Your task to perform on an android device: Search for the best-rated coffee table on Crate & Barrel Image 0: 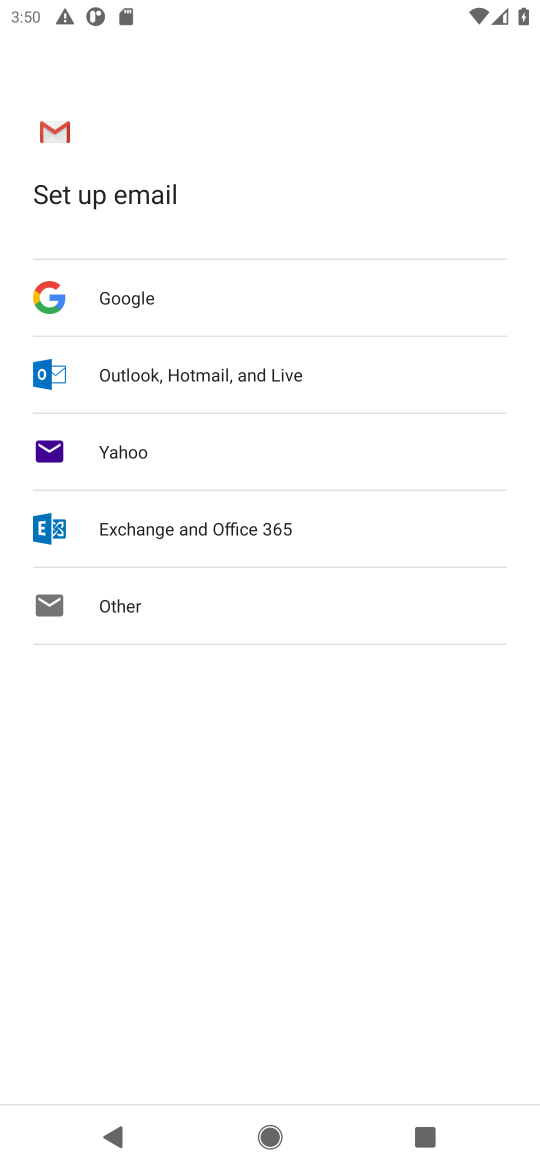
Step 0: press home button
Your task to perform on an android device: Search for the best-rated coffee table on Crate & Barrel Image 1: 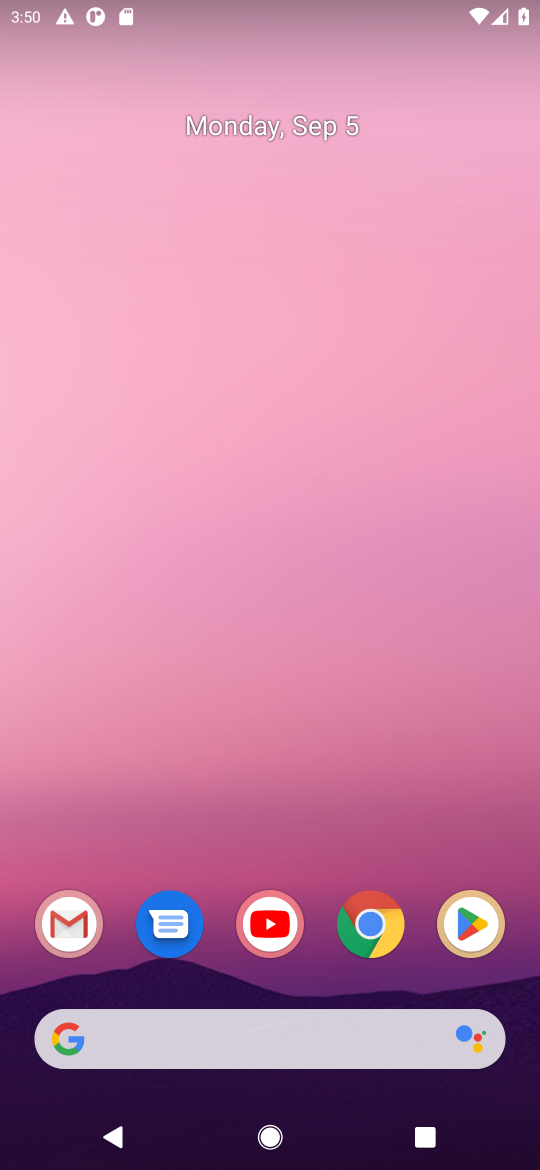
Step 1: click (352, 916)
Your task to perform on an android device: Search for the best-rated coffee table on Crate & Barrel Image 2: 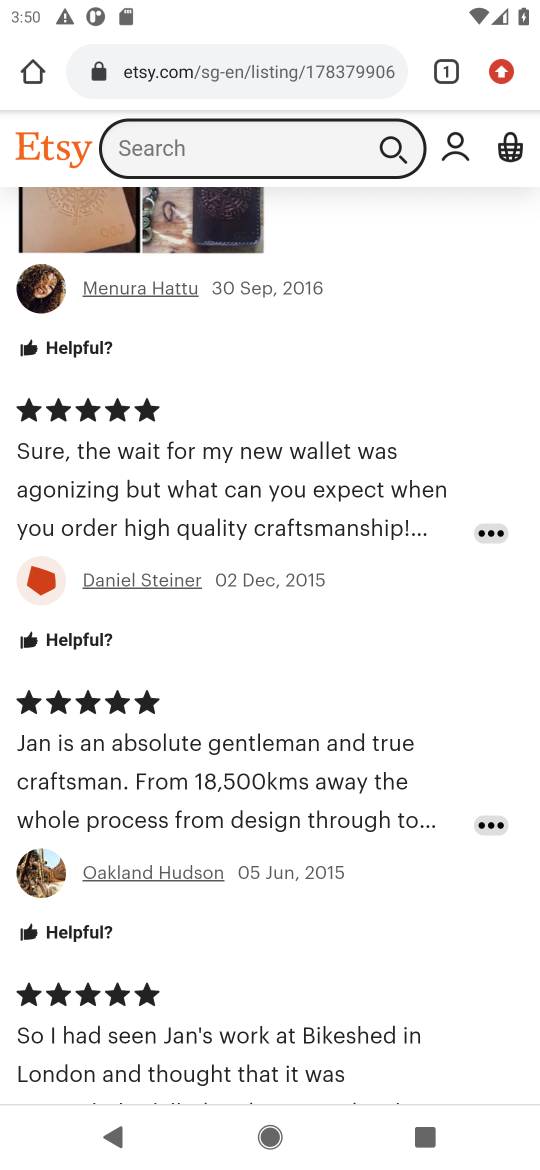
Step 2: click (173, 80)
Your task to perform on an android device: Search for the best-rated coffee table on Crate & Barrel Image 3: 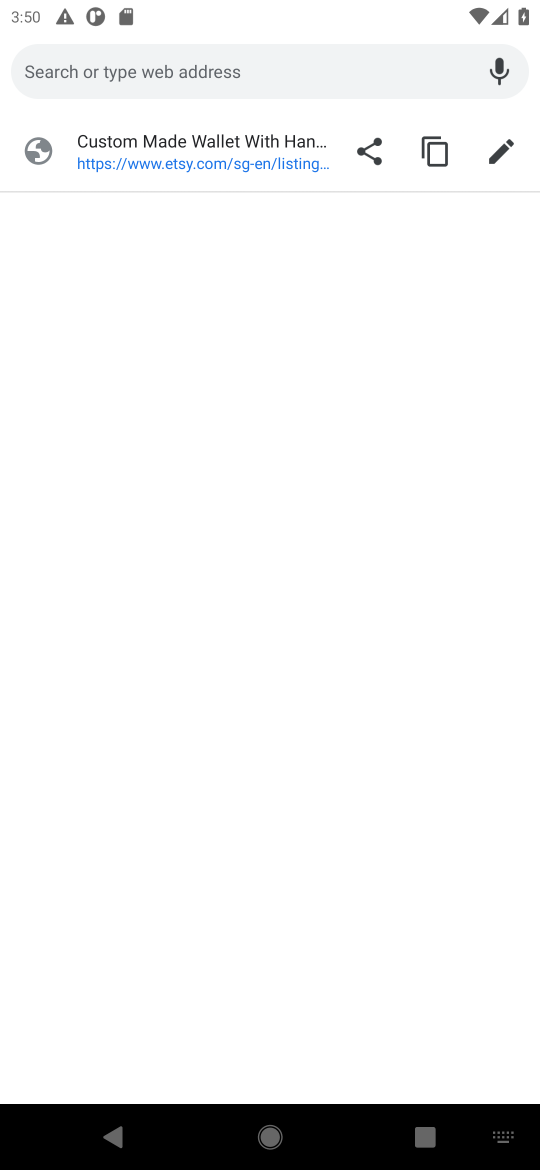
Step 3: type "crate & barrel"
Your task to perform on an android device: Search for the best-rated coffee table on Crate & Barrel Image 4: 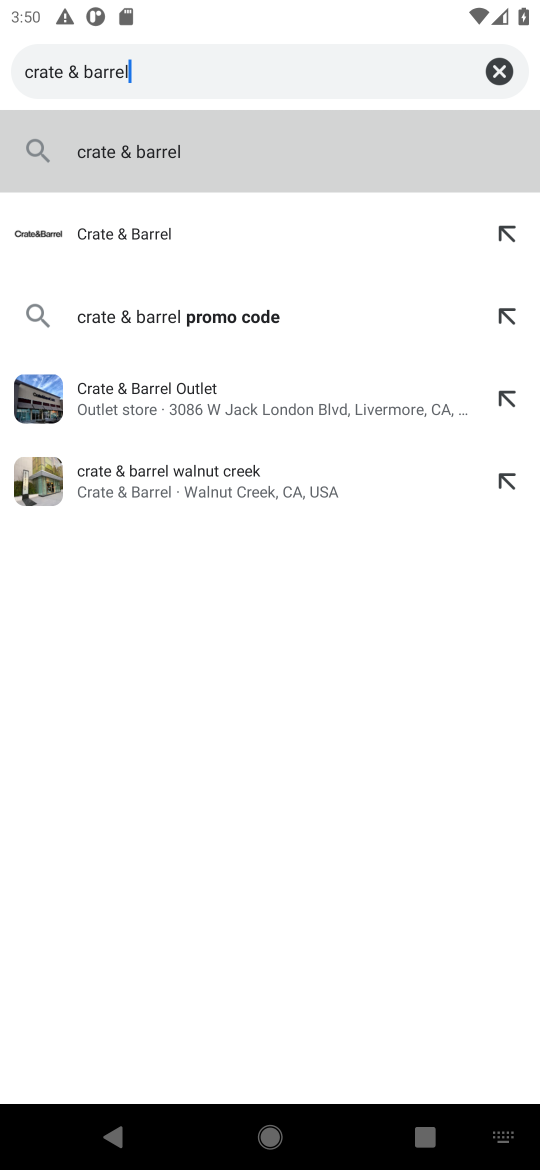
Step 4: type ""
Your task to perform on an android device: Search for the best-rated coffee table on Crate & Barrel Image 5: 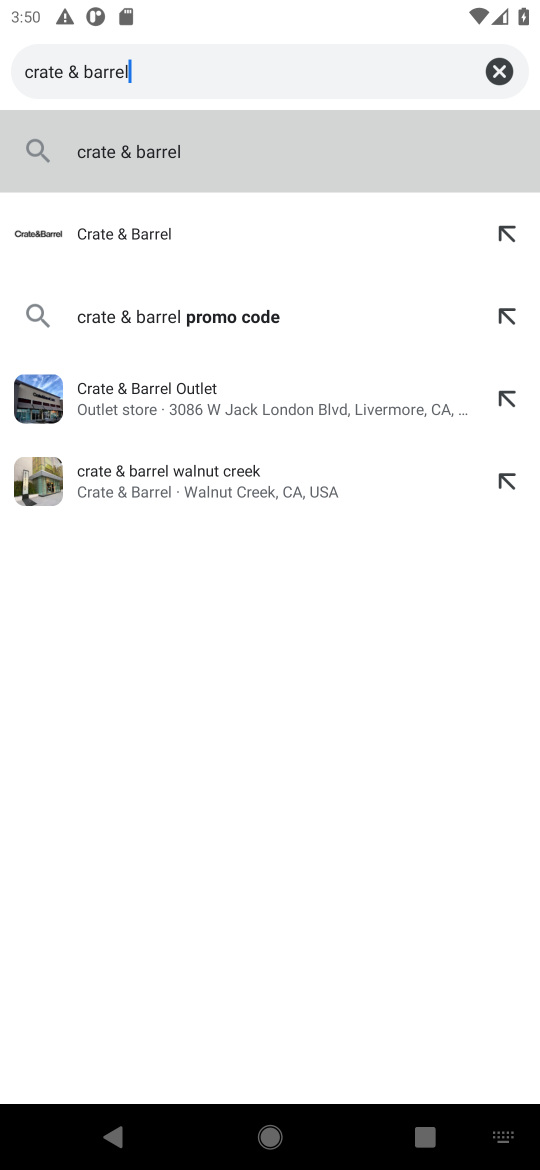
Step 5: click (142, 239)
Your task to perform on an android device: Search for the best-rated coffee table on Crate & Barrel Image 6: 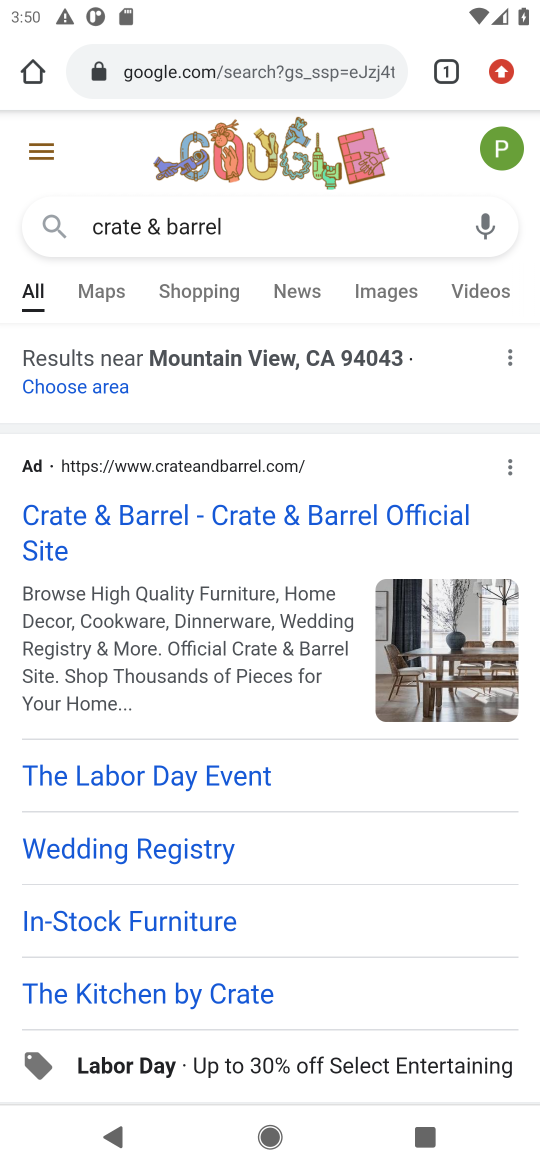
Step 6: drag from (396, 865) to (426, 307)
Your task to perform on an android device: Search for the best-rated coffee table on Crate & Barrel Image 7: 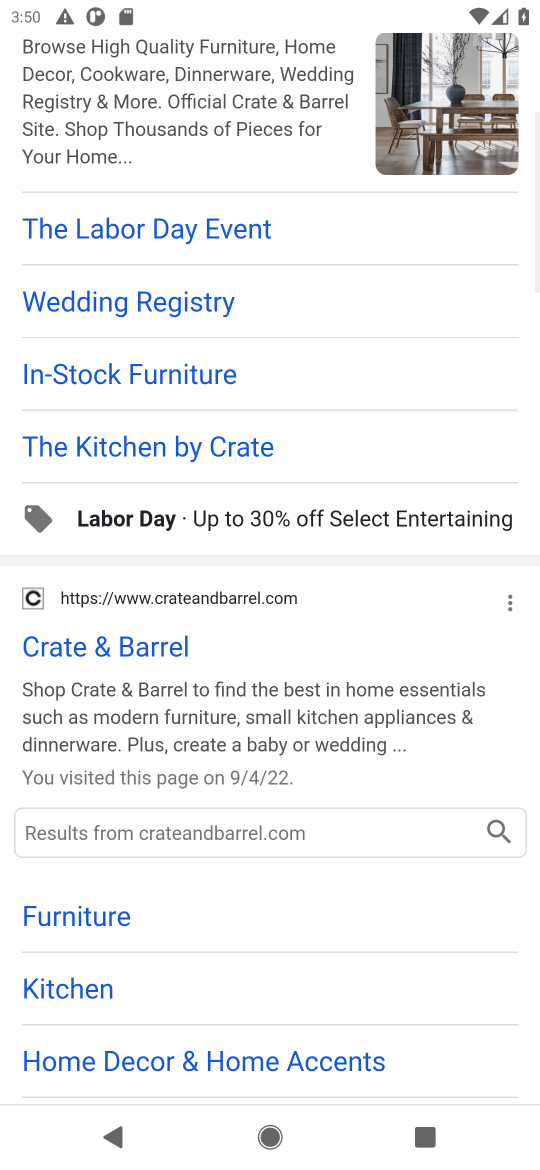
Step 7: click (51, 652)
Your task to perform on an android device: Search for the best-rated coffee table on Crate & Barrel Image 8: 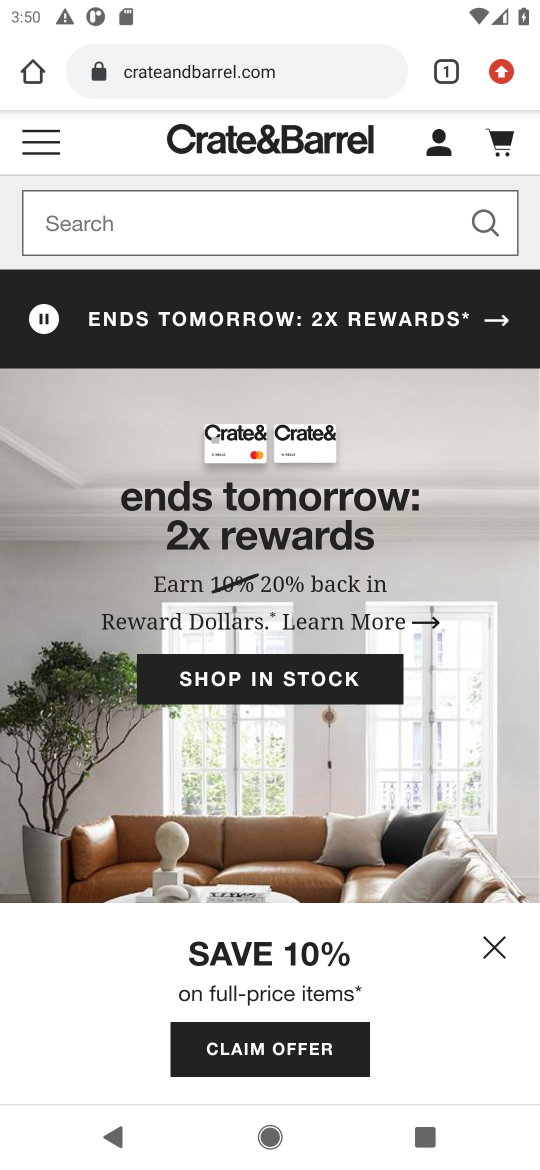
Step 8: click (82, 215)
Your task to perform on an android device: Search for the best-rated coffee table on Crate & Barrel Image 9: 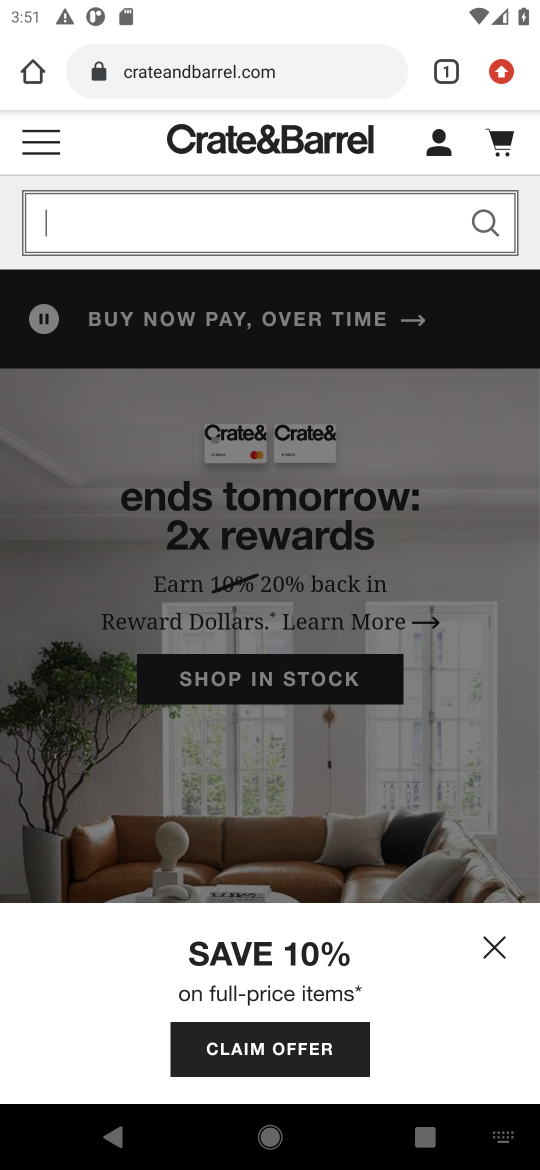
Step 9: type "coffee table "
Your task to perform on an android device: Search for the best-rated coffee table on Crate & Barrel Image 10: 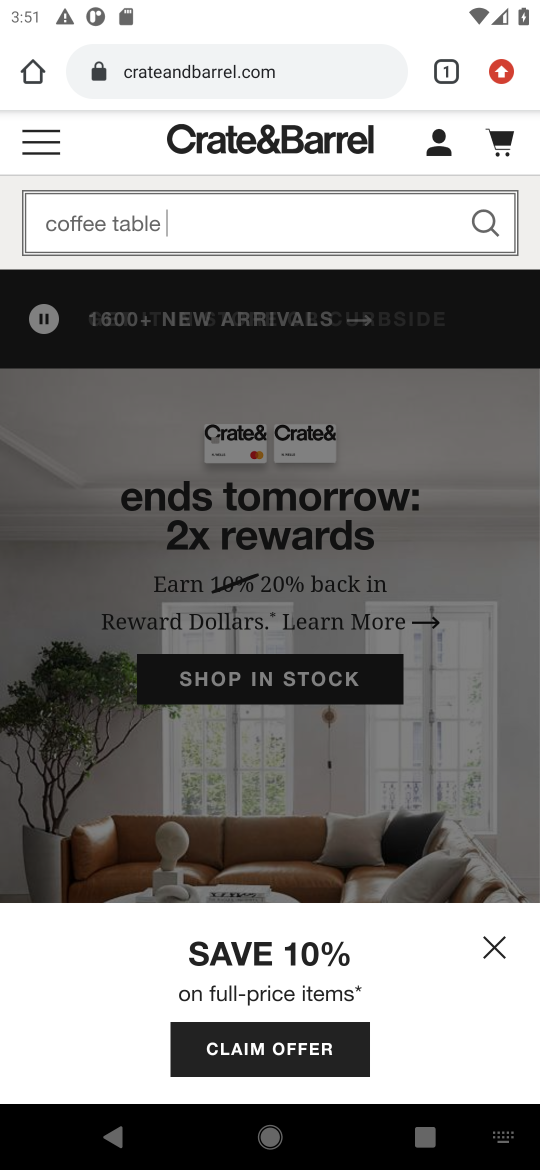
Step 10: type ""
Your task to perform on an android device: Search for the best-rated coffee table on Crate & Barrel Image 11: 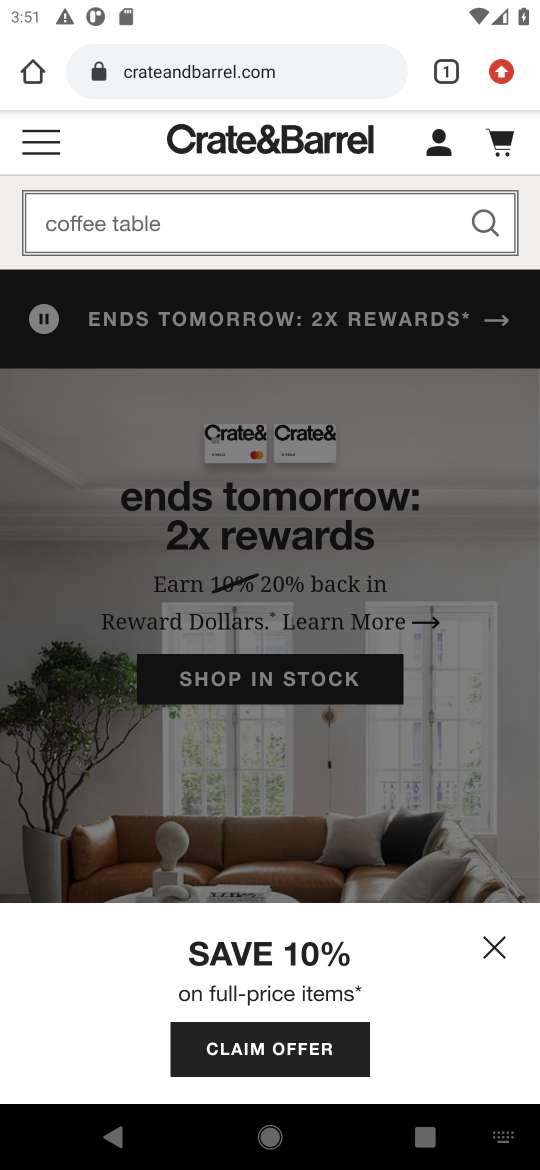
Step 11: press enter
Your task to perform on an android device: Search for the best-rated coffee table on Crate & Barrel Image 12: 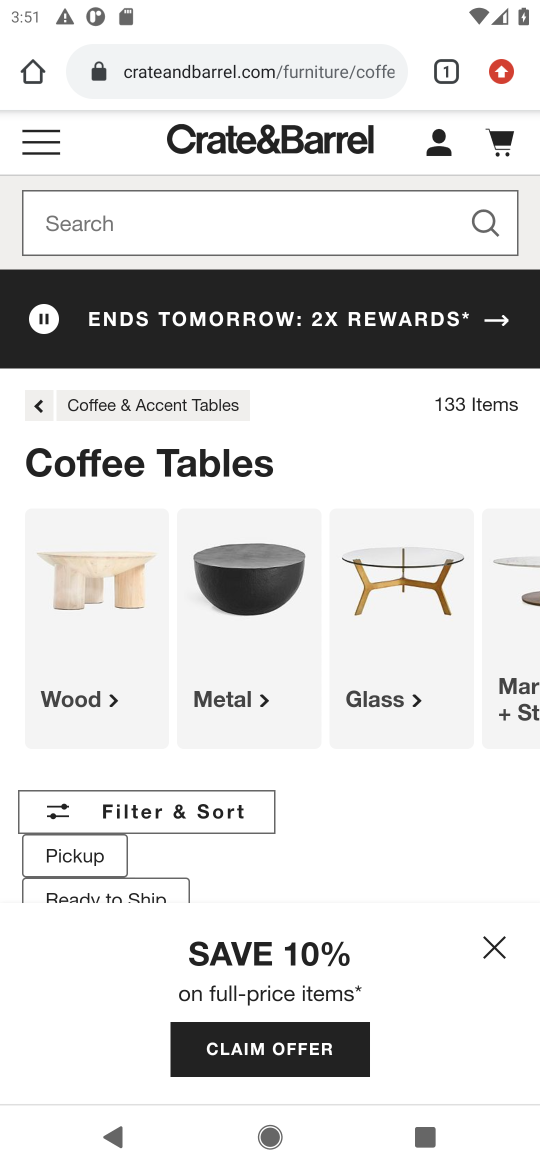
Step 12: drag from (303, 722) to (368, 355)
Your task to perform on an android device: Search for the best-rated coffee table on Crate & Barrel Image 13: 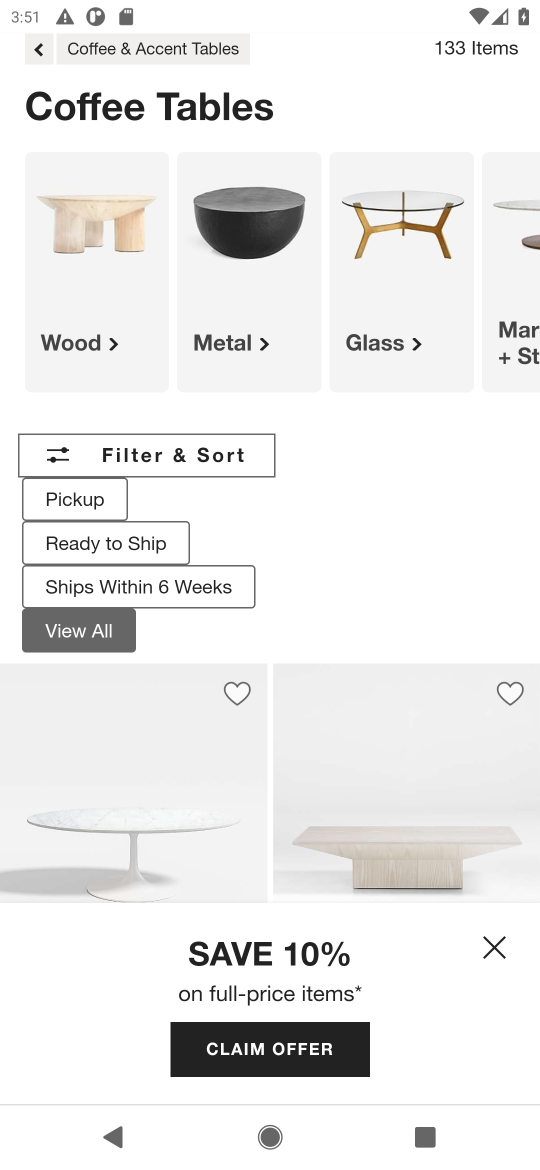
Step 13: drag from (301, 462) to (364, 340)
Your task to perform on an android device: Search for the best-rated coffee table on Crate & Barrel Image 14: 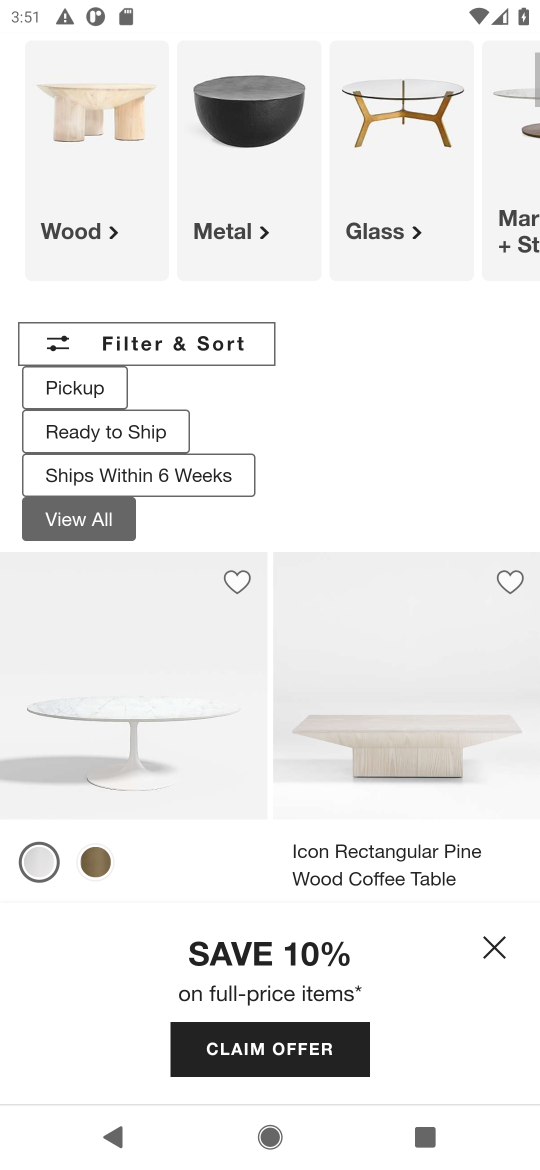
Step 14: drag from (353, 691) to (451, 388)
Your task to perform on an android device: Search for the best-rated coffee table on Crate & Barrel Image 15: 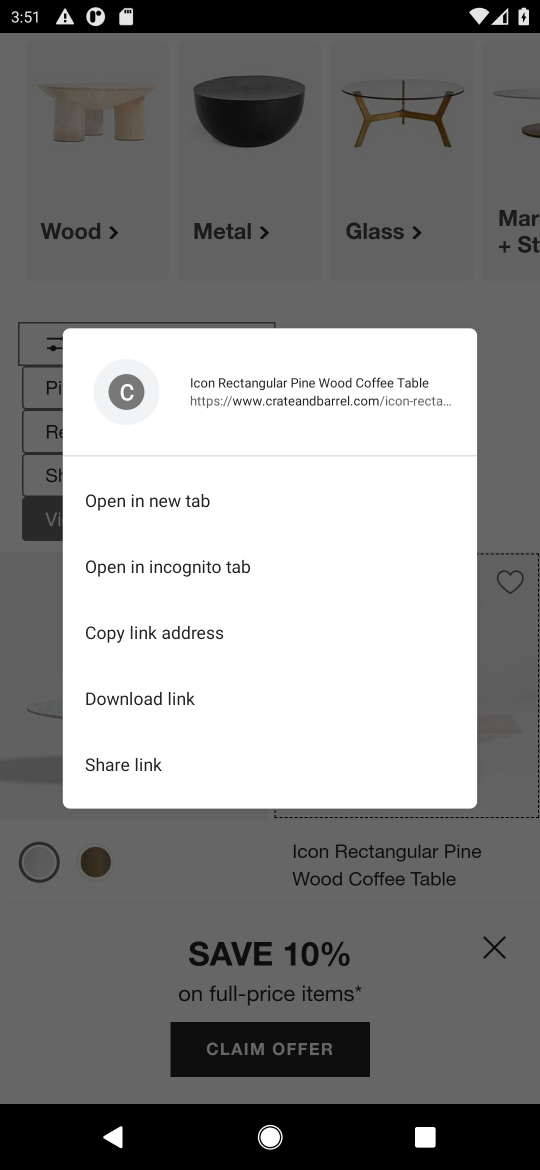
Step 15: click (517, 406)
Your task to perform on an android device: Search for the best-rated coffee table on Crate & Barrel Image 16: 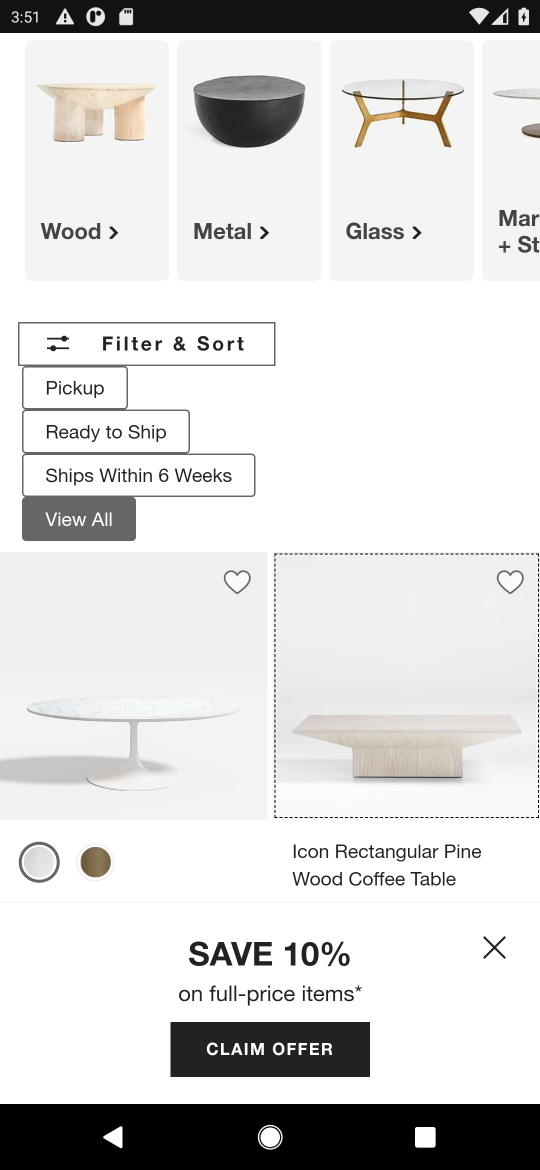
Step 16: task complete